Your task to perform on an android device: toggle translation in the chrome app Image 0: 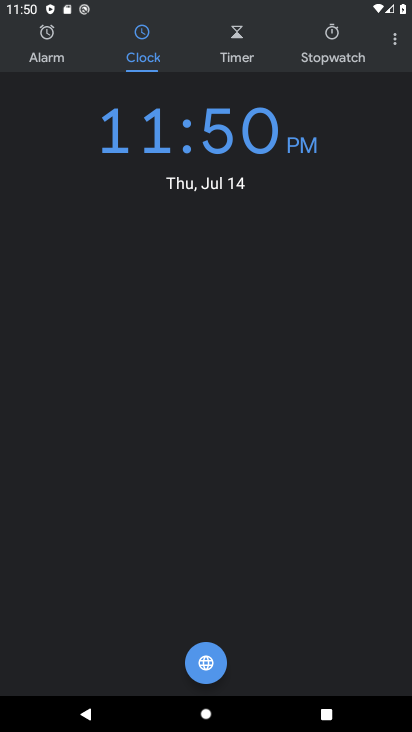
Step 0: press home button
Your task to perform on an android device: toggle translation in the chrome app Image 1: 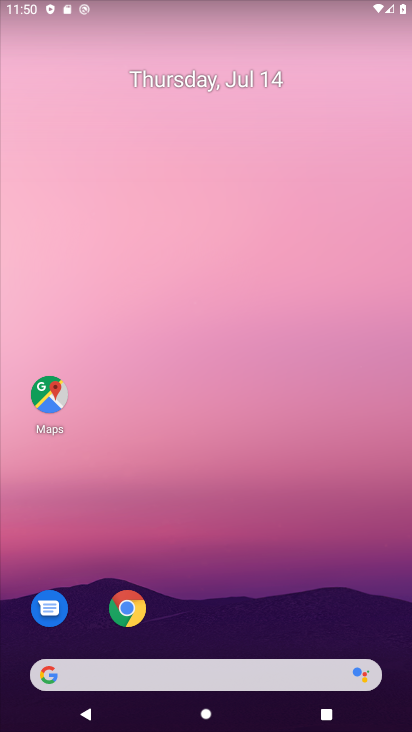
Step 1: click (144, 615)
Your task to perform on an android device: toggle translation in the chrome app Image 2: 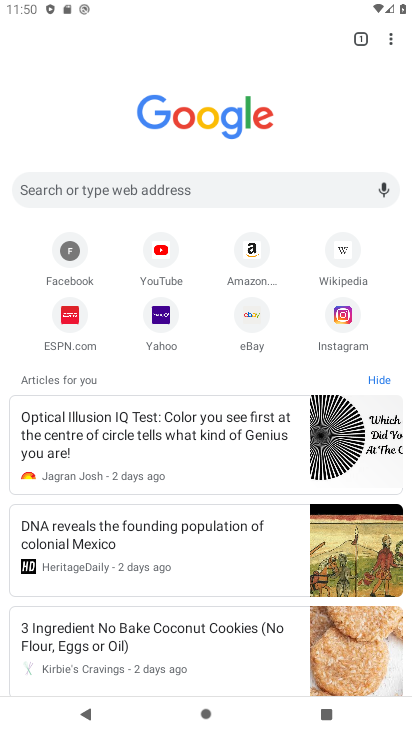
Step 2: drag from (396, 39) to (301, 326)
Your task to perform on an android device: toggle translation in the chrome app Image 3: 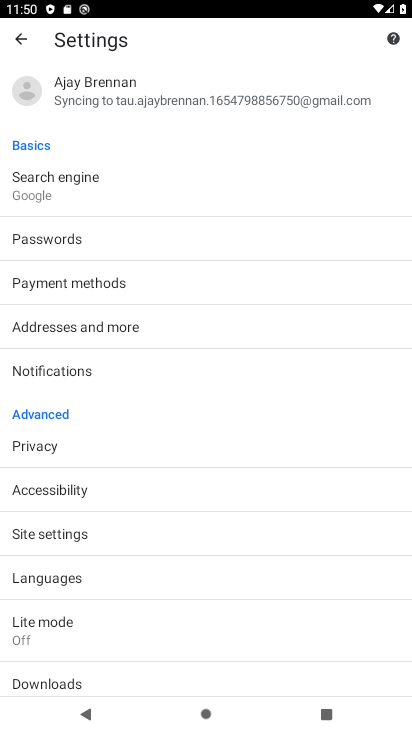
Step 3: click (88, 574)
Your task to perform on an android device: toggle translation in the chrome app Image 4: 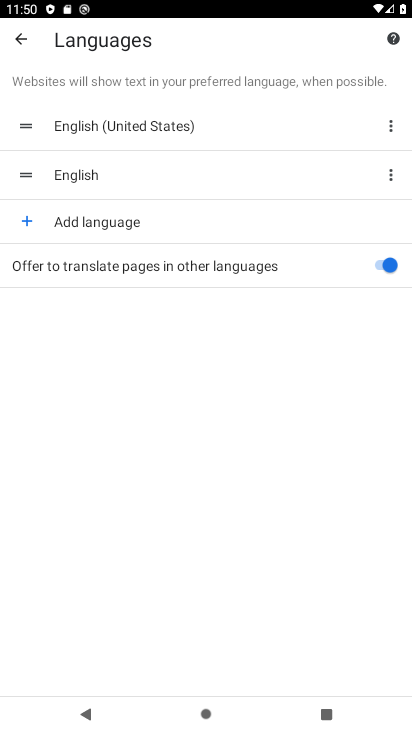
Step 4: click (379, 264)
Your task to perform on an android device: toggle translation in the chrome app Image 5: 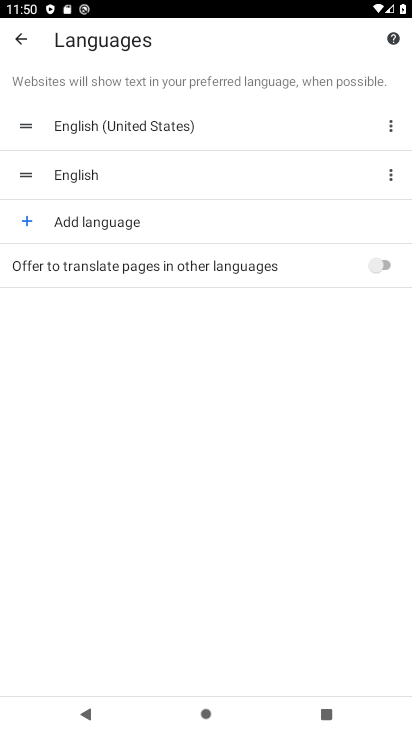
Step 5: task complete